Your task to perform on an android device: Add "jbl flip 4" to the cart on bestbuy.com Image 0: 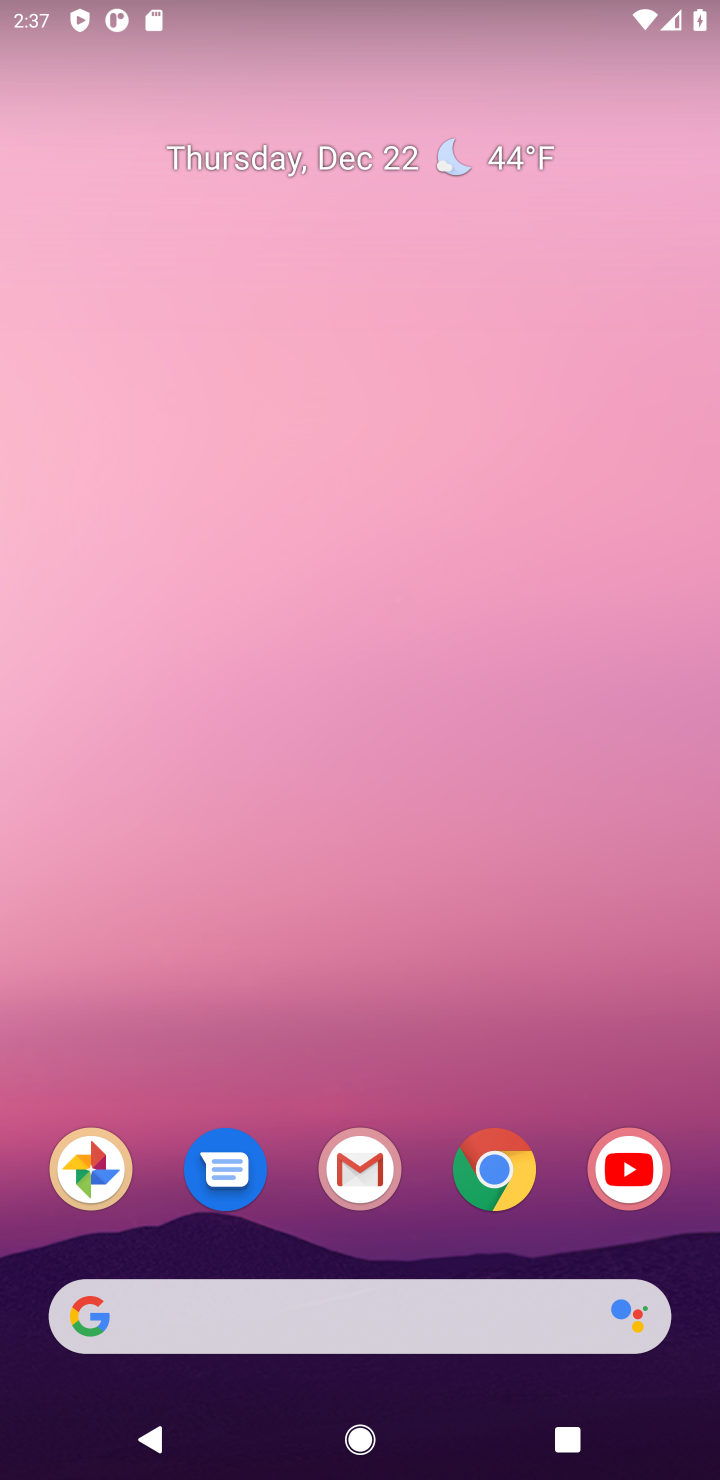
Step 0: click (489, 1183)
Your task to perform on an android device: Add "jbl flip 4" to the cart on bestbuy.com Image 1: 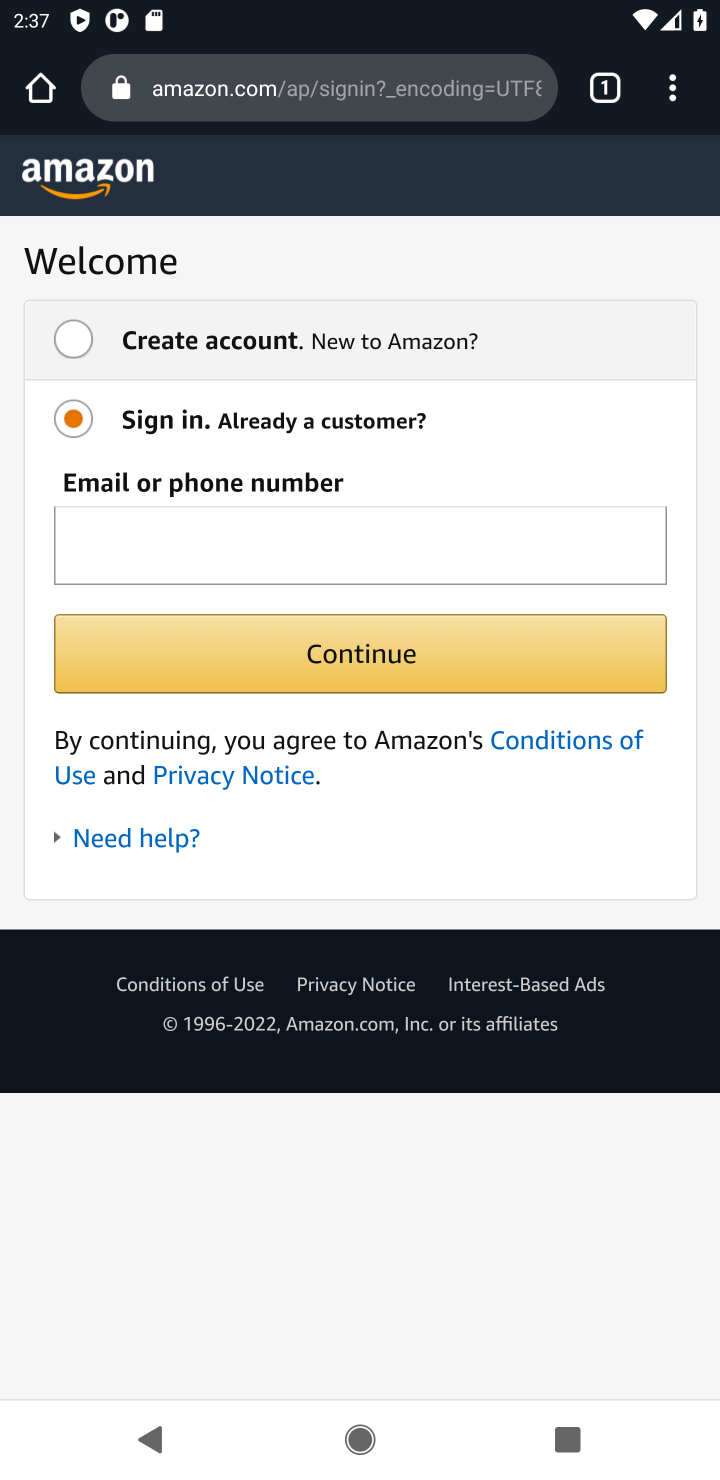
Step 1: click (249, 95)
Your task to perform on an android device: Add "jbl flip 4" to the cart on bestbuy.com Image 2: 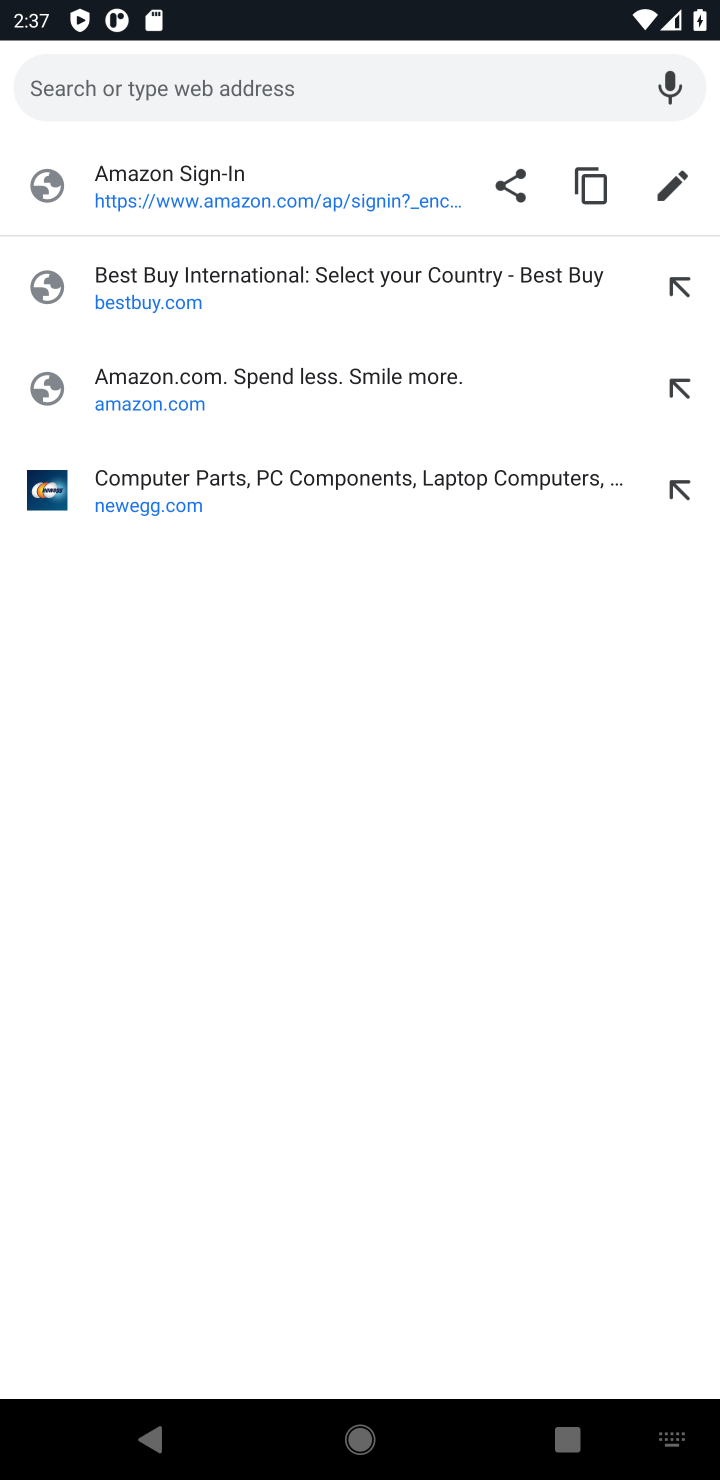
Step 2: click (115, 313)
Your task to perform on an android device: Add "jbl flip 4" to the cart on bestbuy.com Image 3: 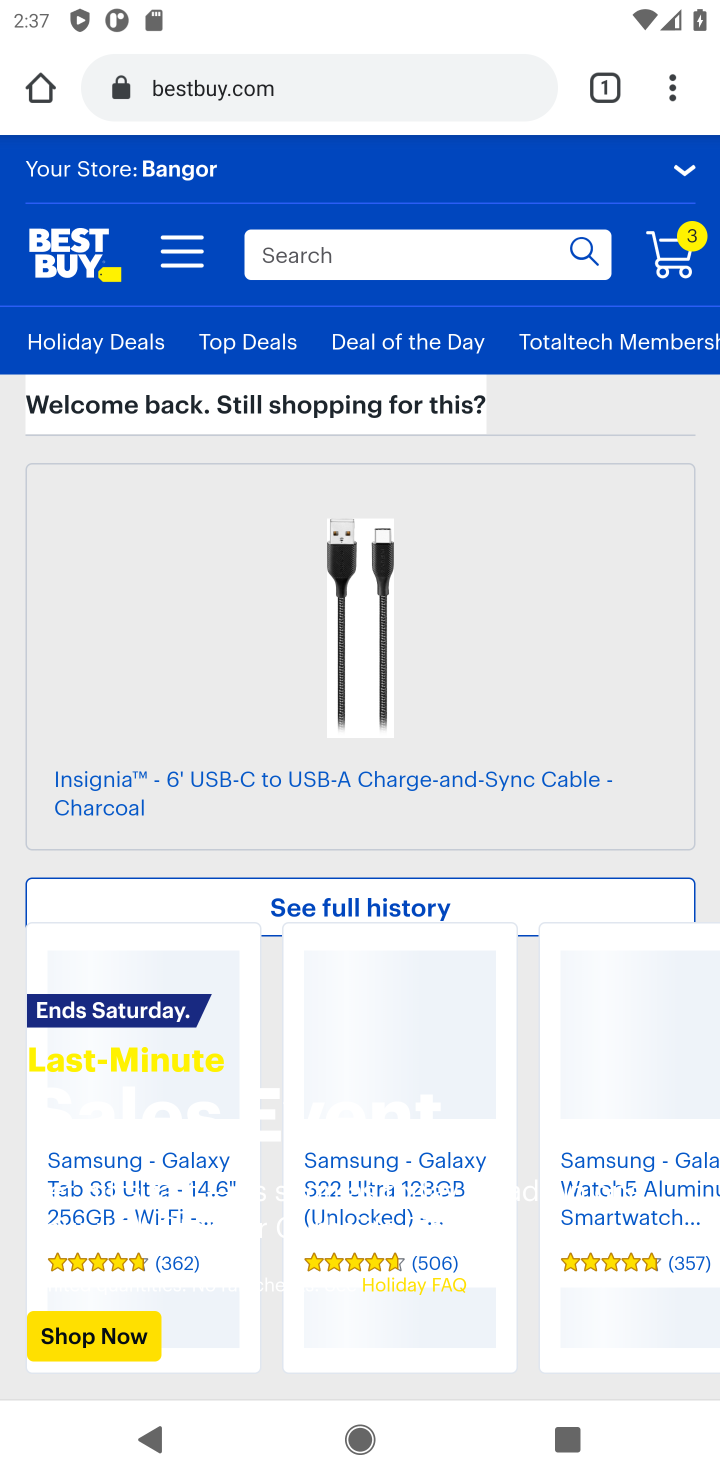
Step 3: click (311, 268)
Your task to perform on an android device: Add "jbl flip 4" to the cart on bestbuy.com Image 4: 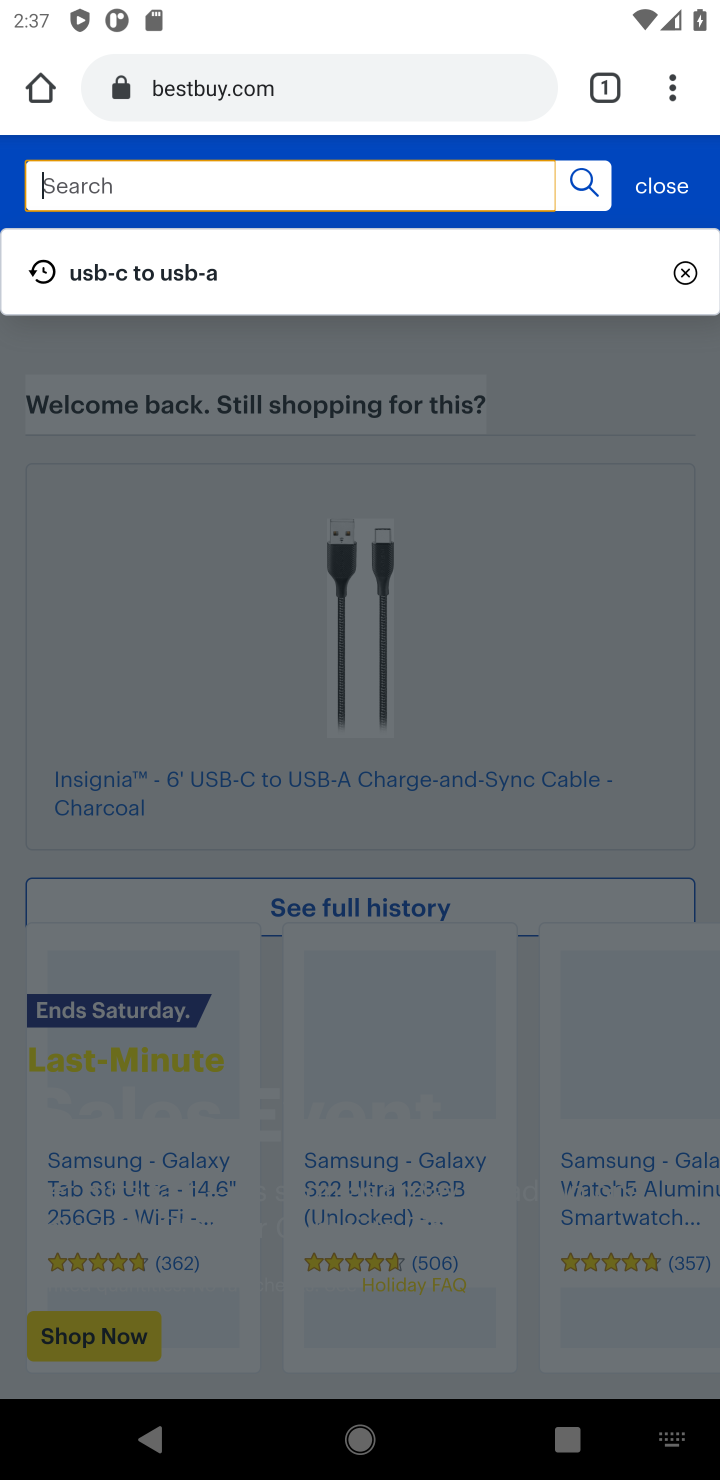
Step 4: type "jbl flip 4"
Your task to perform on an android device: Add "jbl flip 4" to the cart on bestbuy.com Image 5: 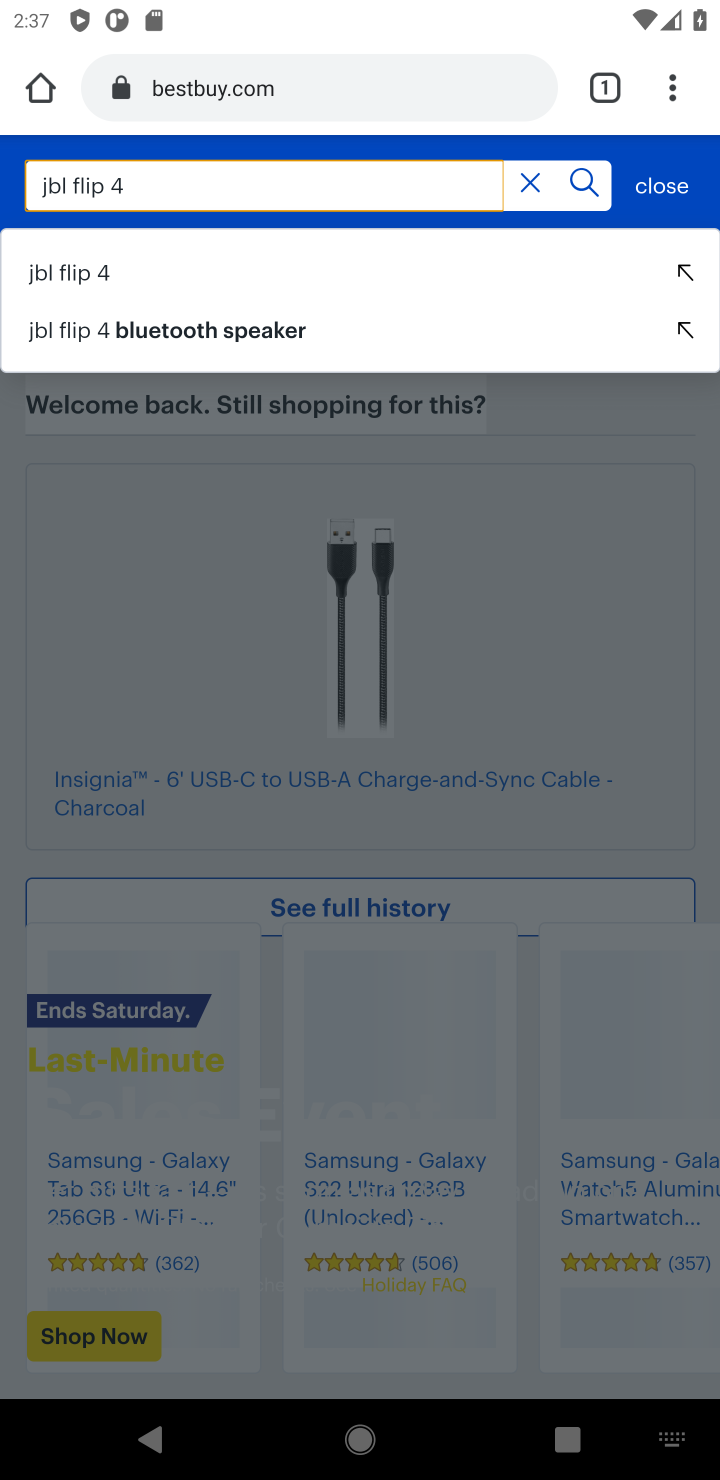
Step 5: click (48, 283)
Your task to perform on an android device: Add "jbl flip 4" to the cart on bestbuy.com Image 6: 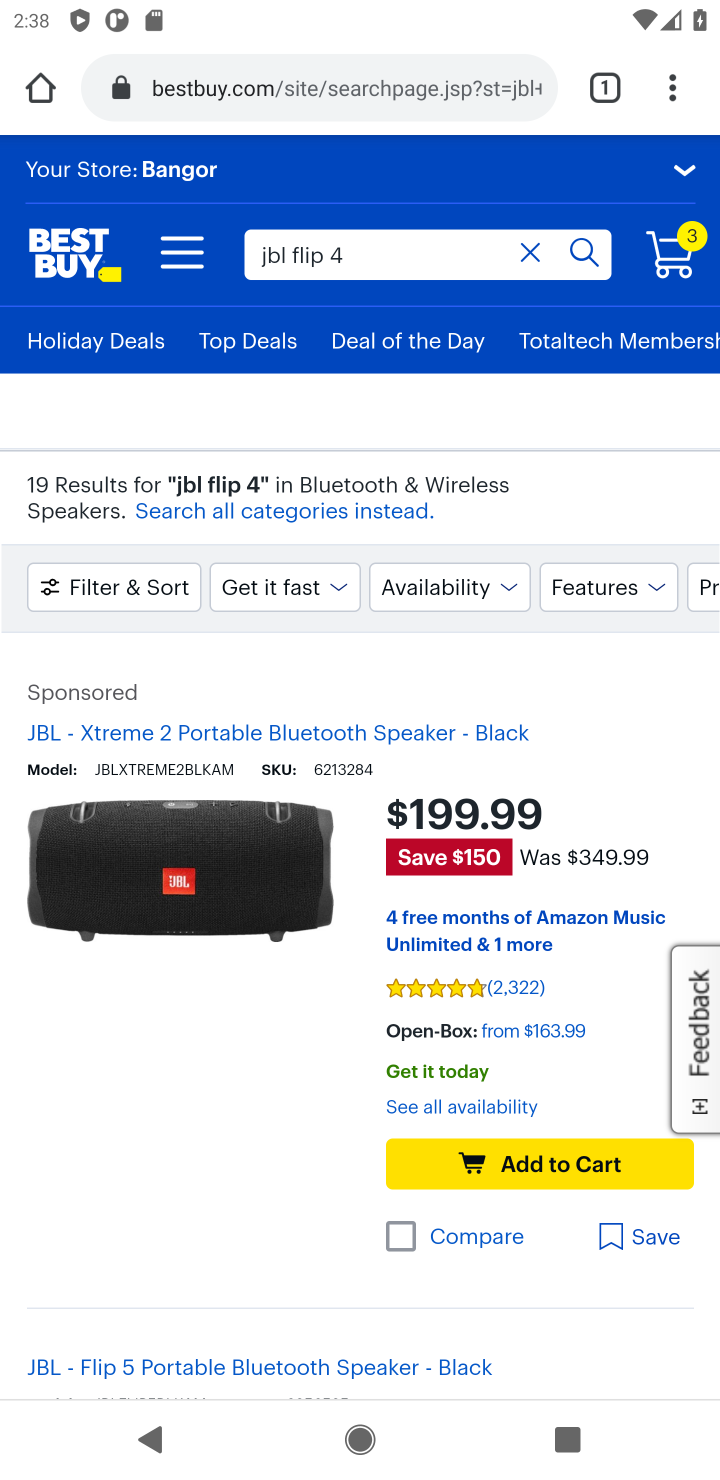
Step 6: task complete